Your task to perform on an android device: Open the stopwatch Image 0: 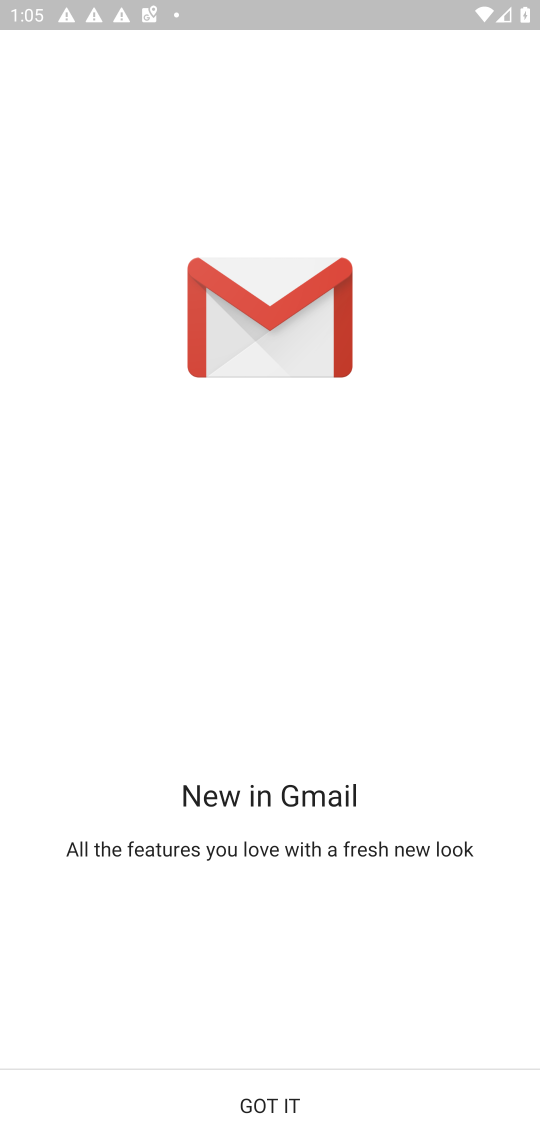
Step 0: press home button
Your task to perform on an android device: Open the stopwatch Image 1: 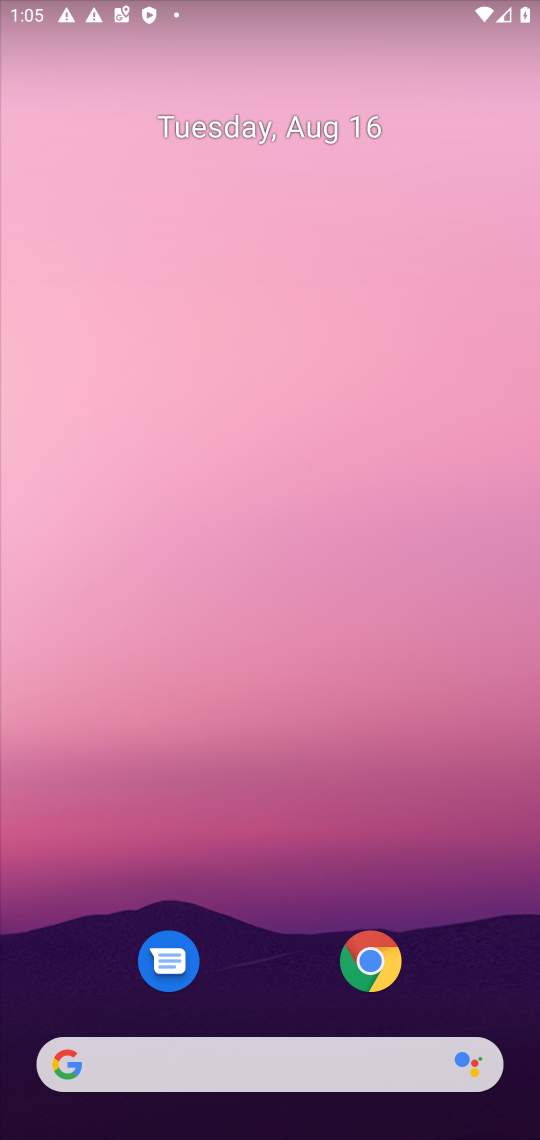
Step 1: drag from (475, 997) to (293, 20)
Your task to perform on an android device: Open the stopwatch Image 2: 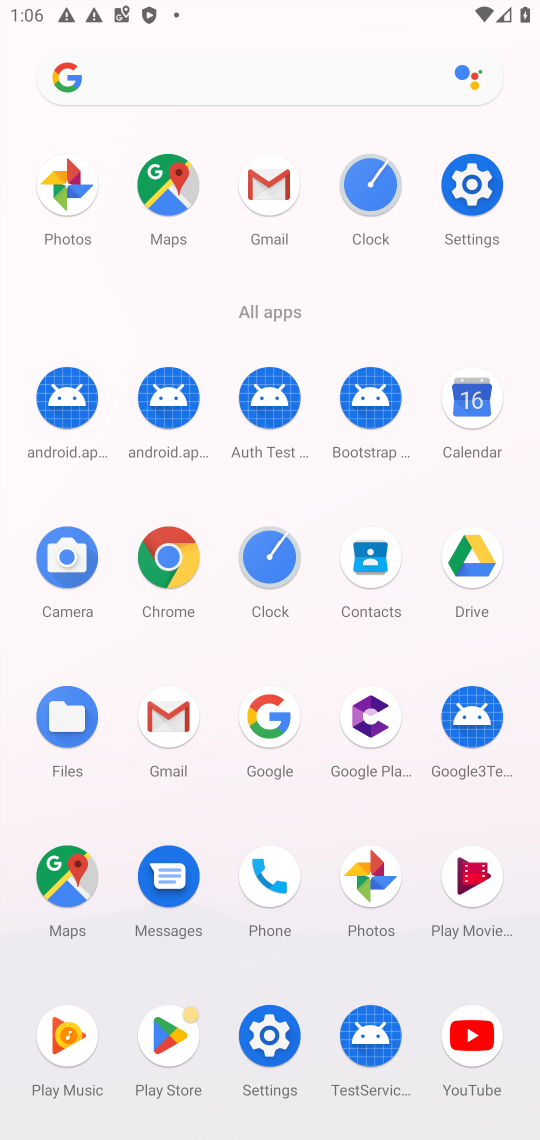
Step 2: click (273, 563)
Your task to perform on an android device: Open the stopwatch Image 3: 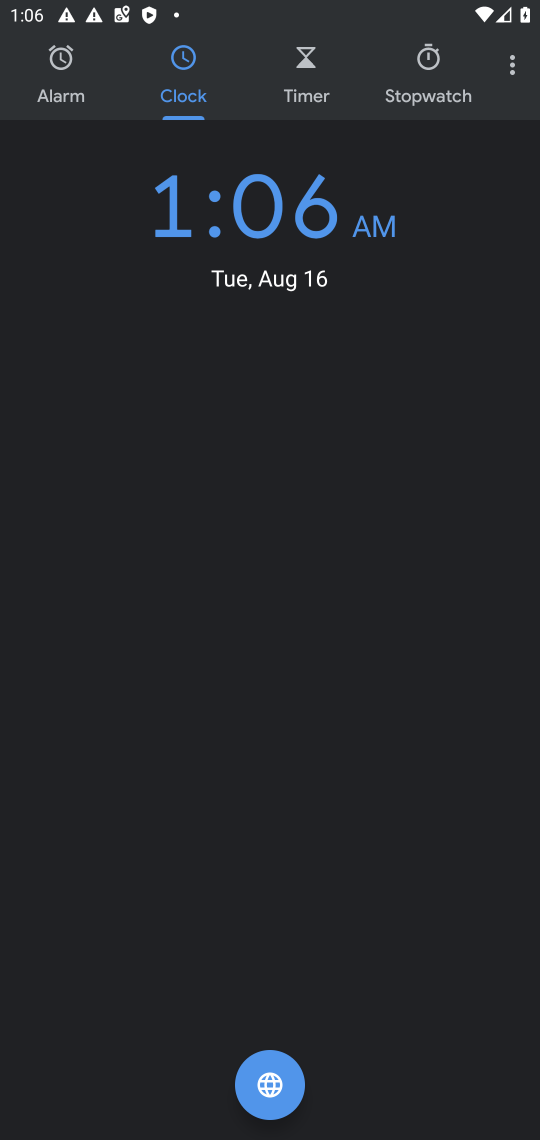
Step 3: click (421, 95)
Your task to perform on an android device: Open the stopwatch Image 4: 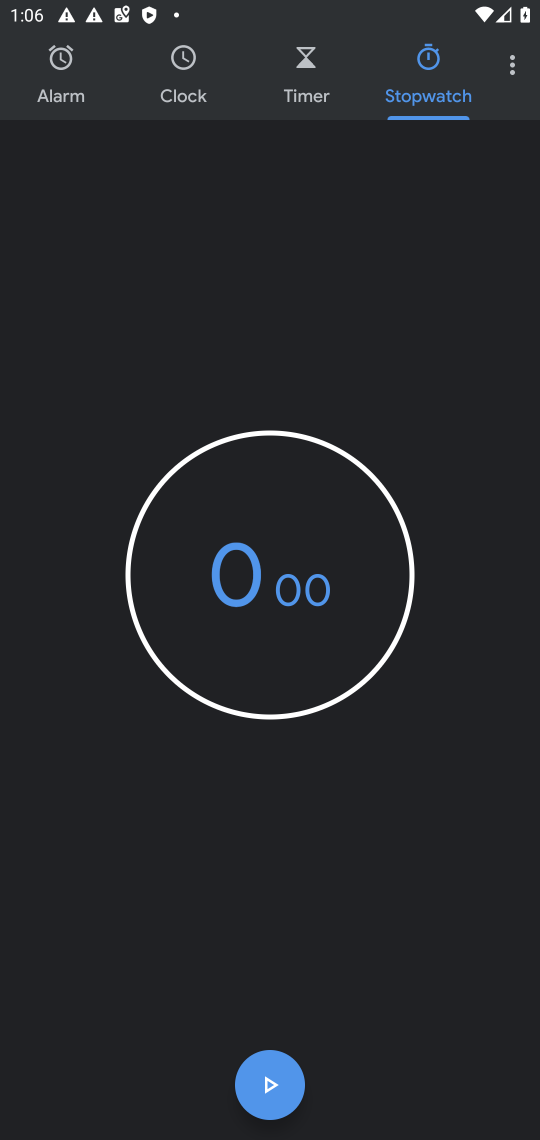
Step 4: click (421, 95)
Your task to perform on an android device: Open the stopwatch Image 5: 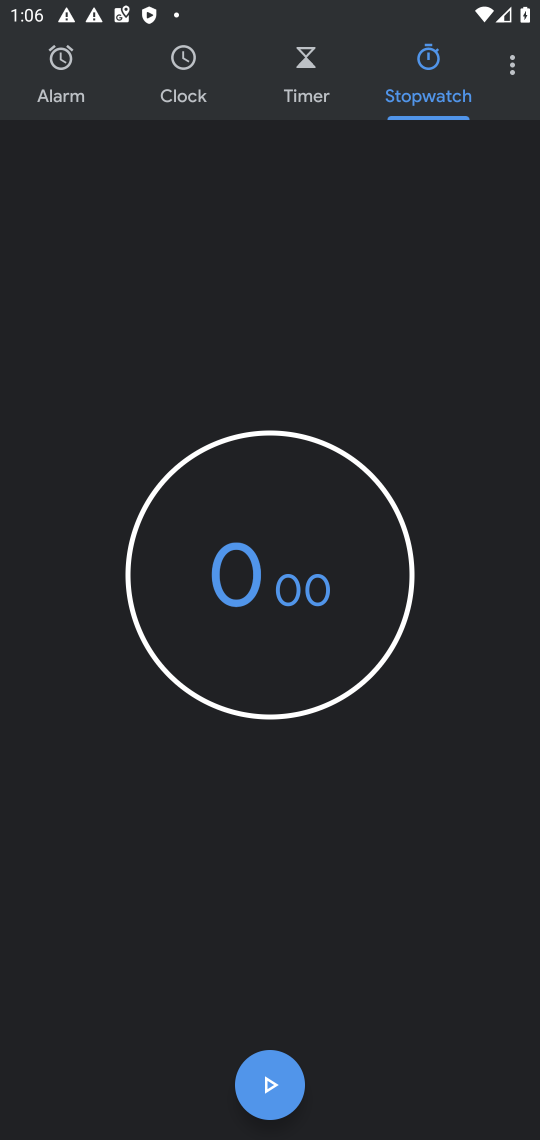
Step 5: task complete